Your task to perform on an android device: open a new tab in the chrome app Image 0: 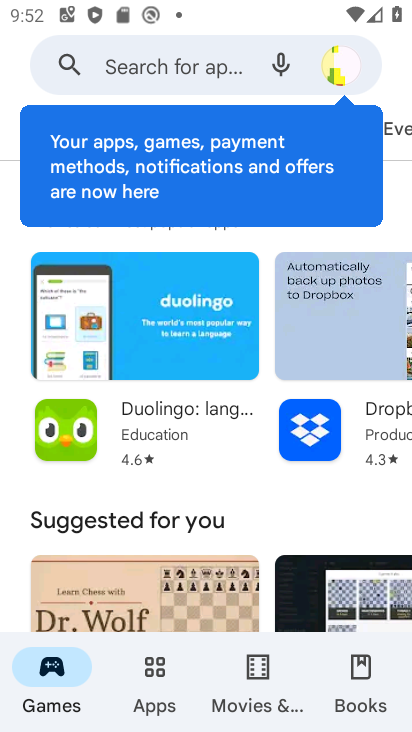
Step 0: press home button
Your task to perform on an android device: open a new tab in the chrome app Image 1: 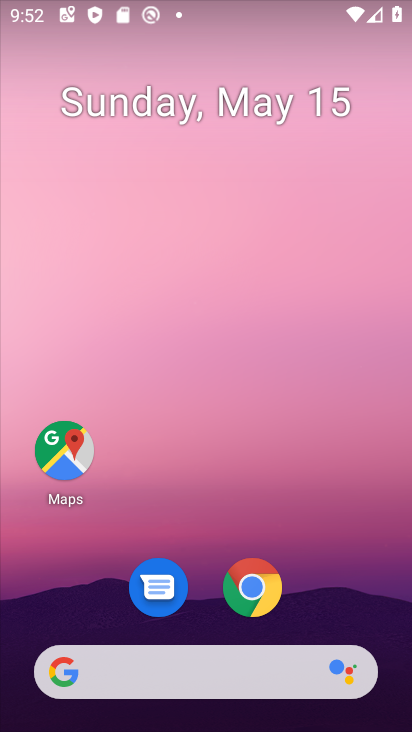
Step 1: drag from (402, 639) to (321, 91)
Your task to perform on an android device: open a new tab in the chrome app Image 2: 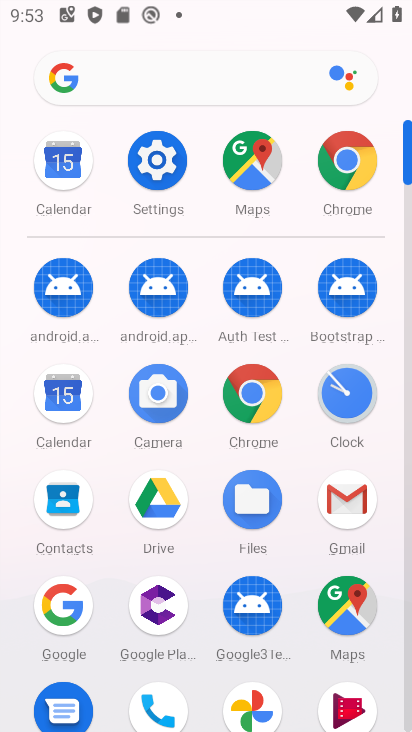
Step 2: click (251, 393)
Your task to perform on an android device: open a new tab in the chrome app Image 3: 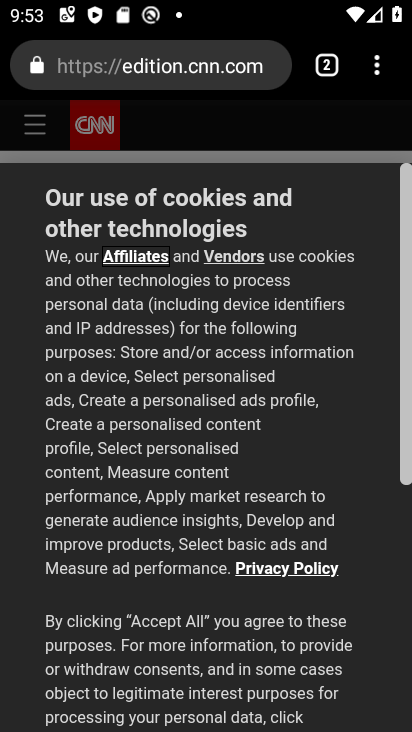
Step 3: press back button
Your task to perform on an android device: open a new tab in the chrome app Image 4: 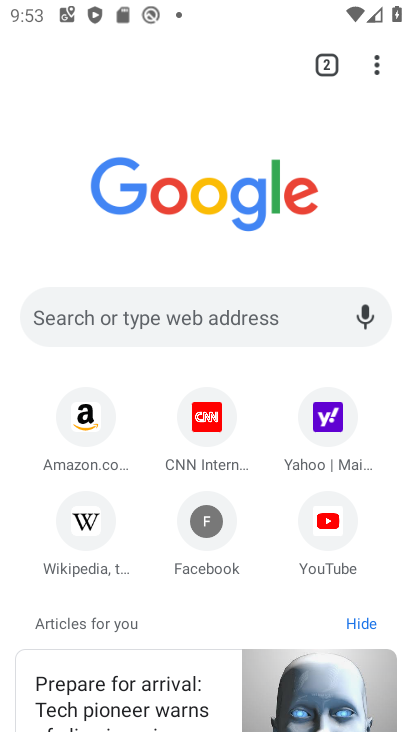
Step 4: click (374, 67)
Your task to perform on an android device: open a new tab in the chrome app Image 5: 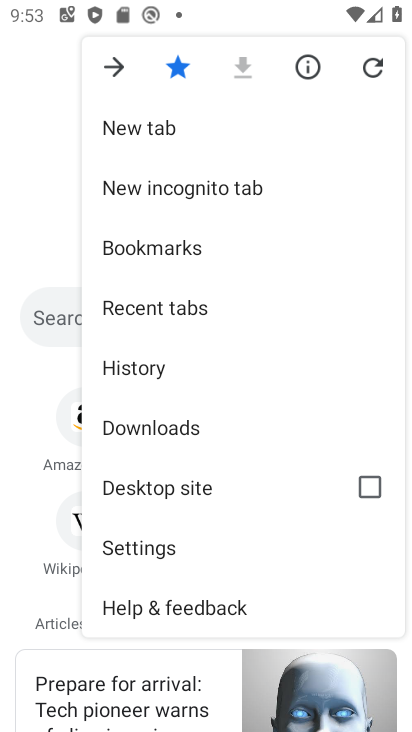
Step 5: click (256, 133)
Your task to perform on an android device: open a new tab in the chrome app Image 6: 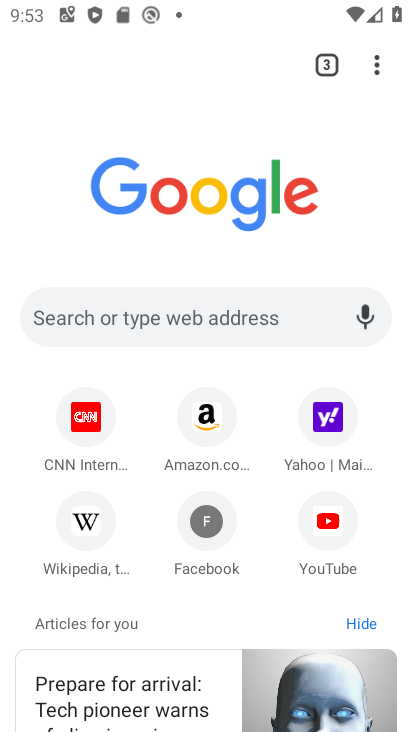
Step 6: task complete